Your task to perform on an android device: turn on wifi Image 0: 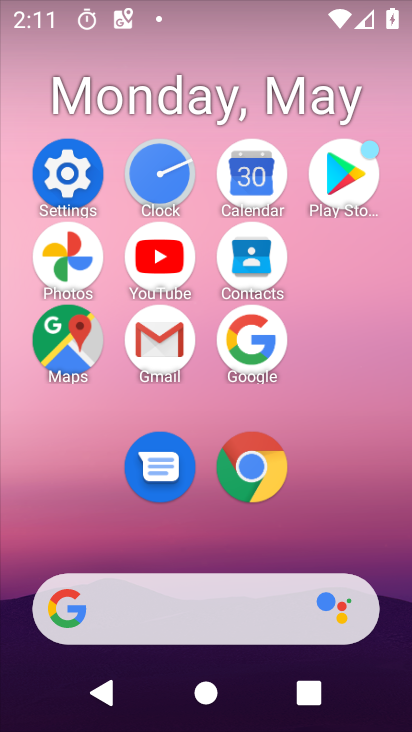
Step 0: click (63, 169)
Your task to perform on an android device: turn on wifi Image 1: 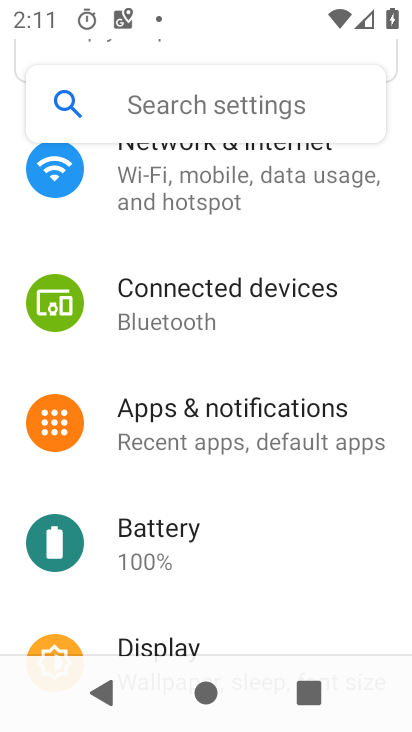
Step 1: click (240, 189)
Your task to perform on an android device: turn on wifi Image 2: 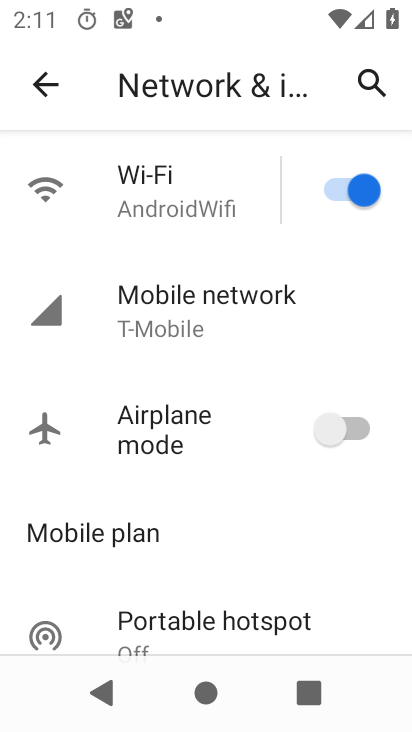
Step 2: task complete